Your task to perform on an android device: refresh tabs in the chrome app Image 0: 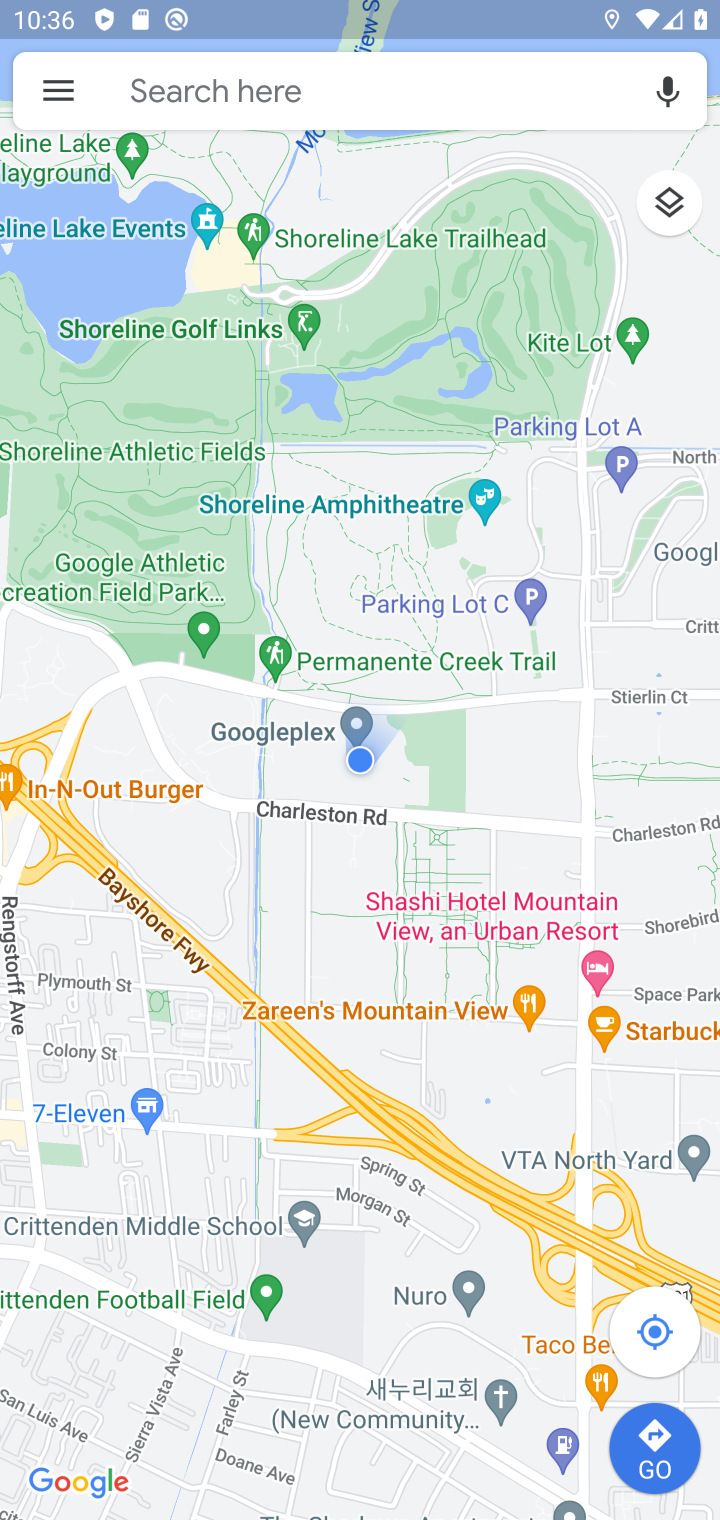
Step 0: press back button
Your task to perform on an android device: refresh tabs in the chrome app Image 1: 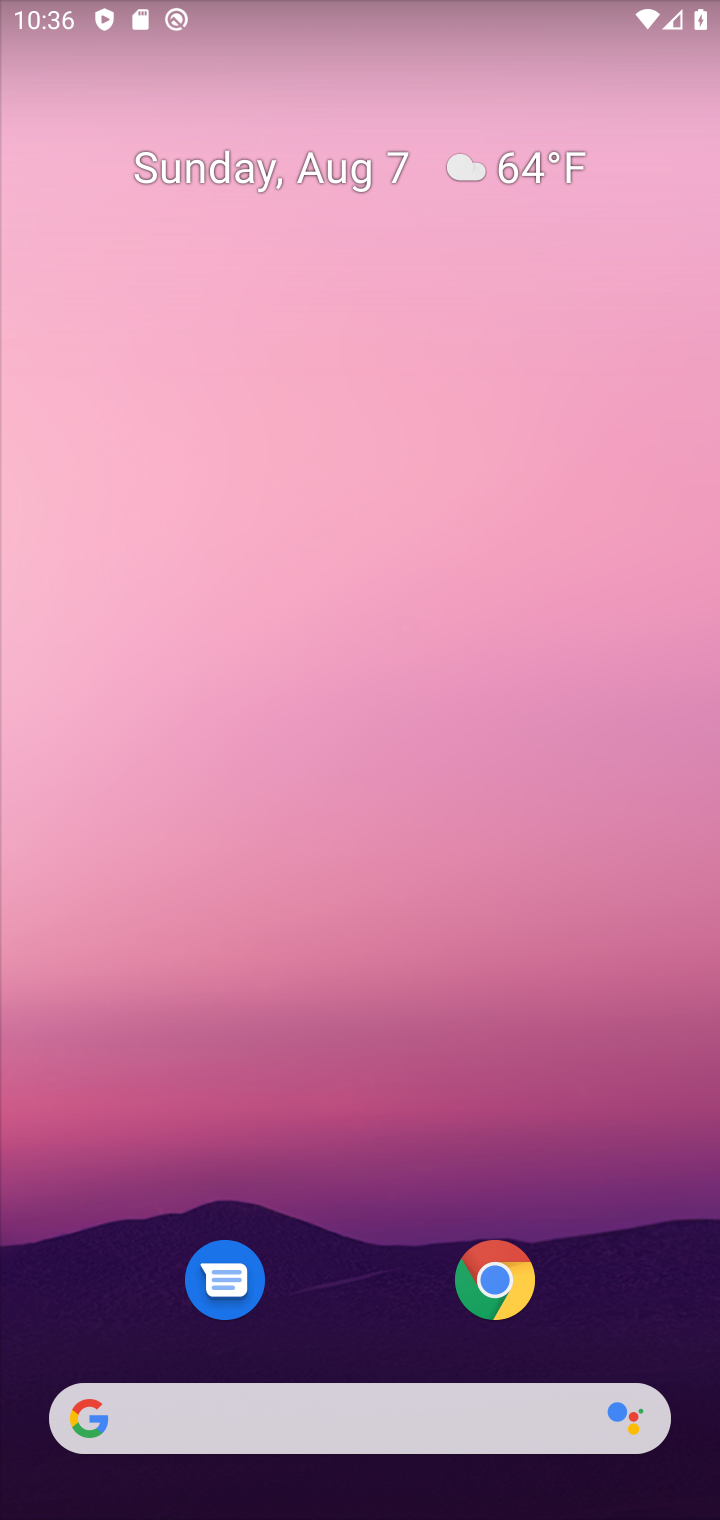
Step 1: click (493, 1258)
Your task to perform on an android device: refresh tabs in the chrome app Image 2: 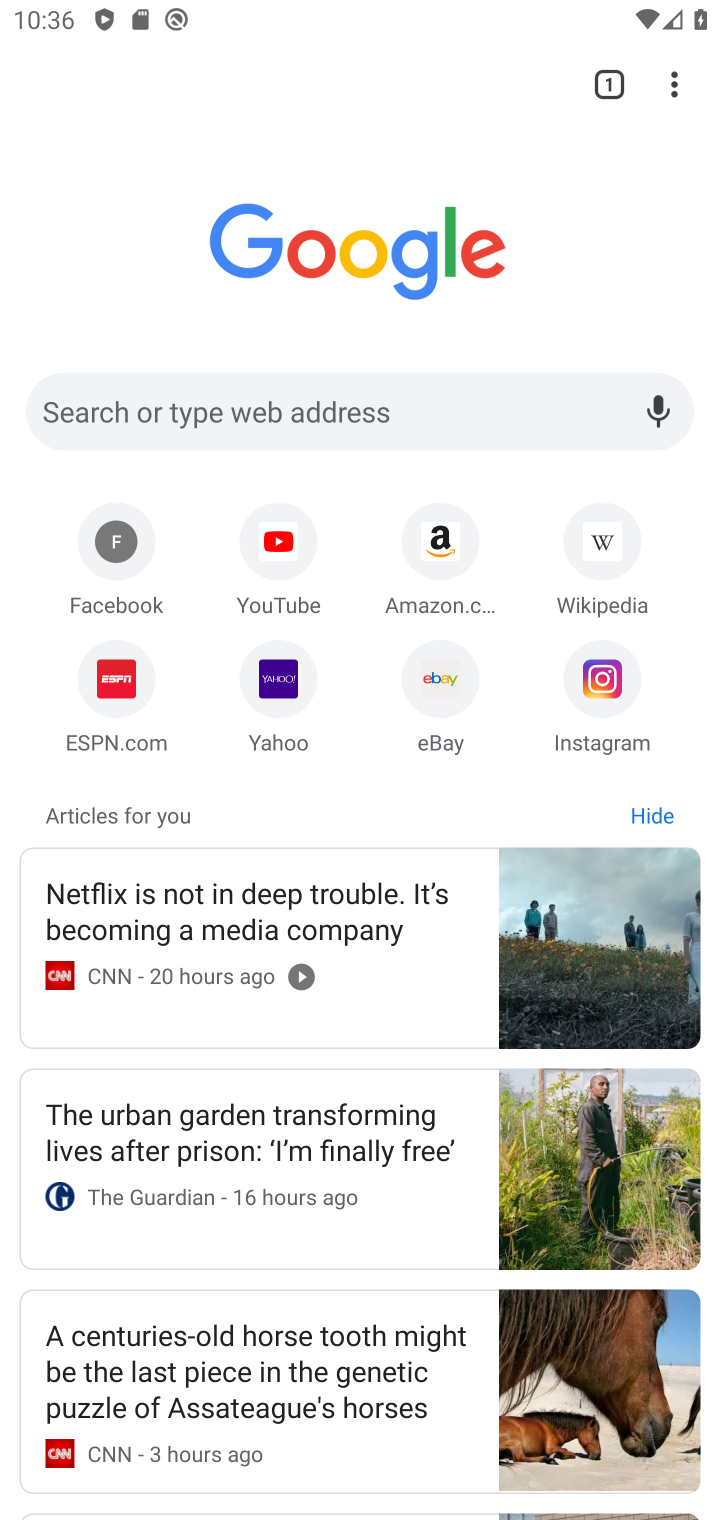
Step 2: click (676, 80)
Your task to perform on an android device: refresh tabs in the chrome app Image 3: 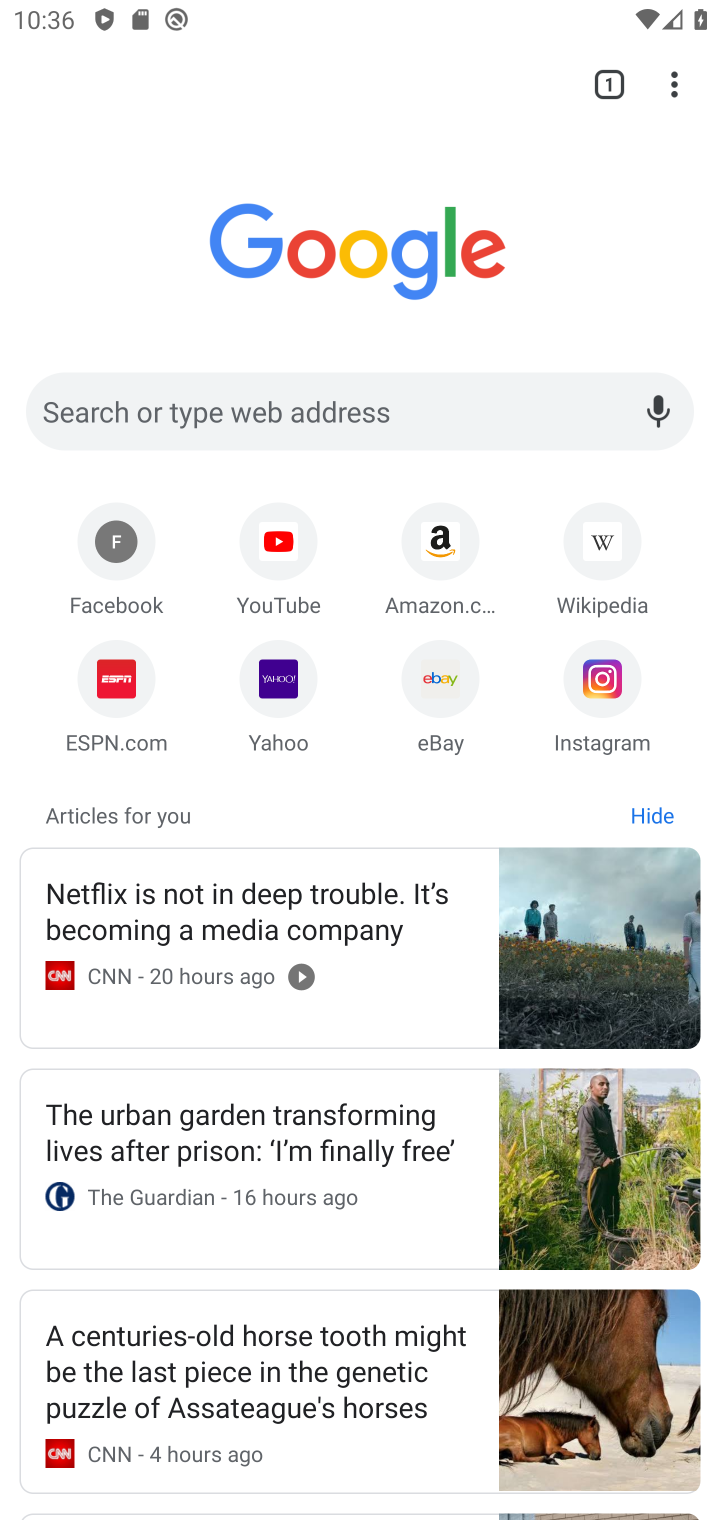
Step 3: task complete